Your task to perform on an android device: Search for vegetarian restaurants on Maps Image 0: 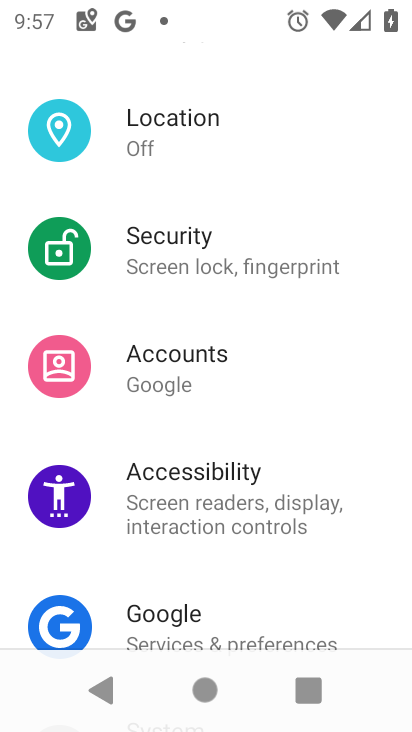
Step 0: press home button
Your task to perform on an android device: Search for vegetarian restaurants on Maps Image 1: 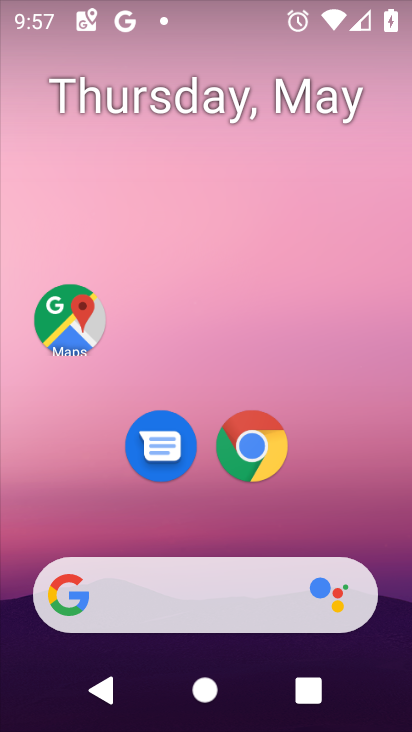
Step 1: drag from (363, 506) to (341, 114)
Your task to perform on an android device: Search for vegetarian restaurants on Maps Image 2: 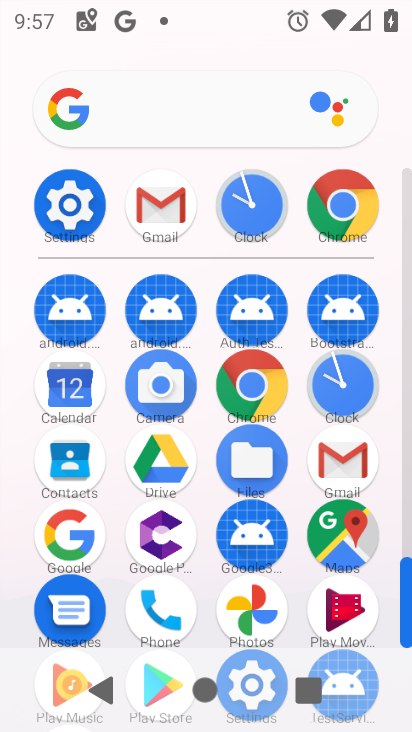
Step 2: click (346, 553)
Your task to perform on an android device: Search for vegetarian restaurants on Maps Image 3: 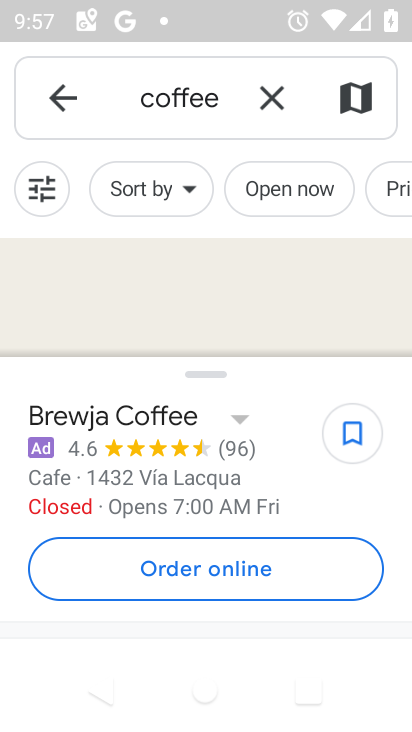
Step 3: click (276, 101)
Your task to perform on an android device: Search for vegetarian restaurants on Maps Image 4: 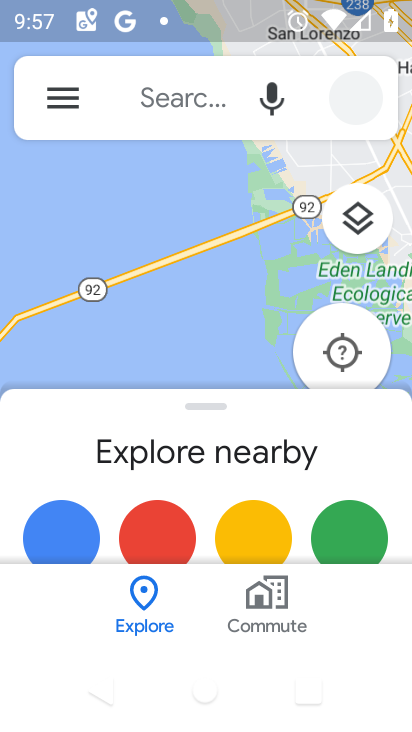
Step 4: click (196, 96)
Your task to perform on an android device: Search for vegetarian restaurants on Maps Image 5: 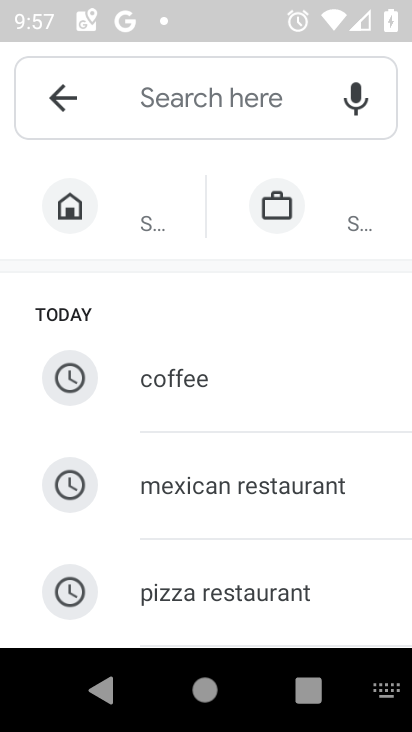
Step 5: type "vegetarian restaurants "
Your task to perform on an android device: Search for vegetarian restaurants on Maps Image 6: 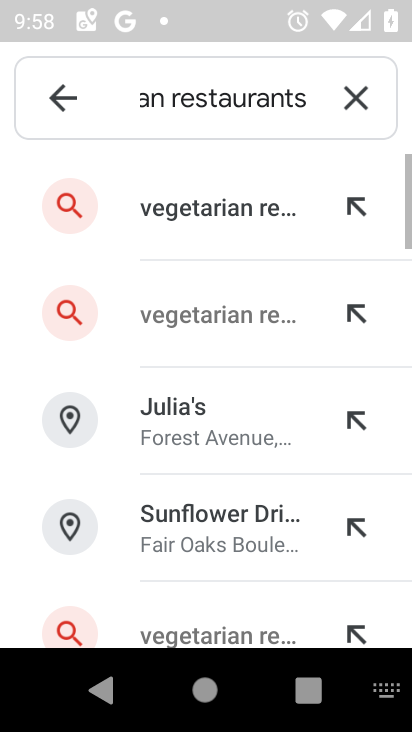
Step 6: click (191, 200)
Your task to perform on an android device: Search for vegetarian restaurants on Maps Image 7: 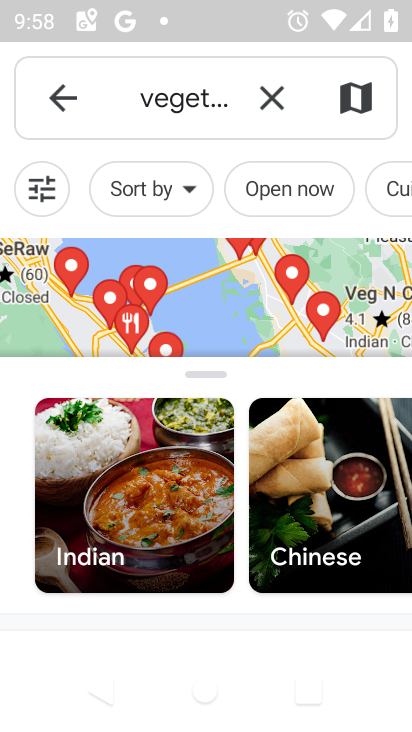
Step 7: task complete